Your task to perform on an android device: snooze an email in the gmail app Image 0: 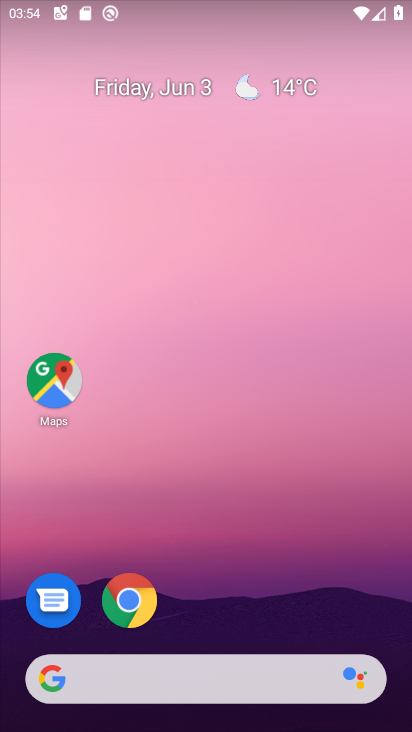
Step 0: drag from (223, 576) to (243, 154)
Your task to perform on an android device: snooze an email in the gmail app Image 1: 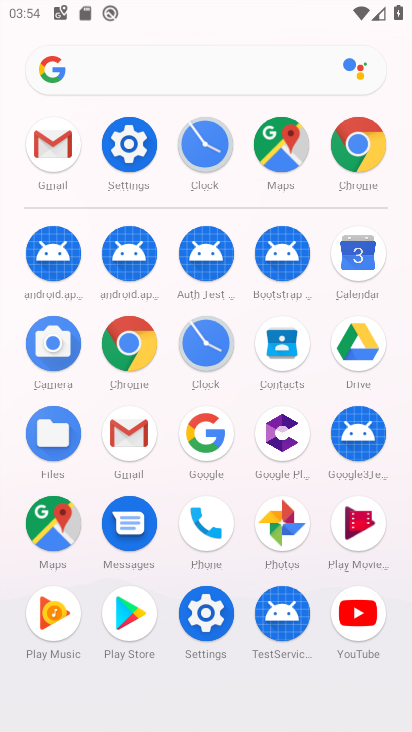
Step 1: click (66, 154)
Your task to perform on an android device: snooze an email in the gmail app Image 2: 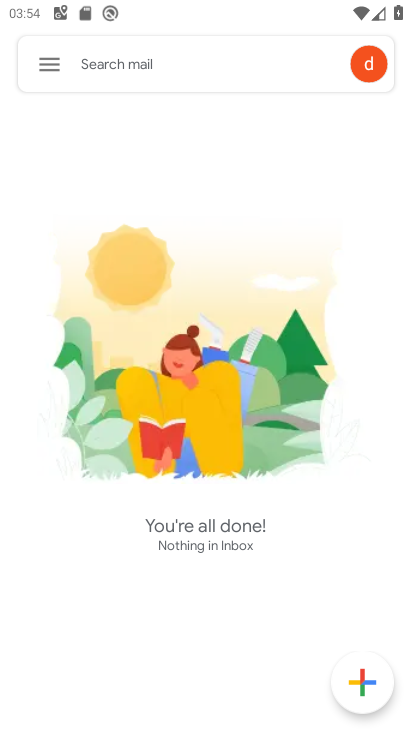
Step 2: click (46, 61)
Your task to perform on an android device: snooze an email in the gmail app Image 3: 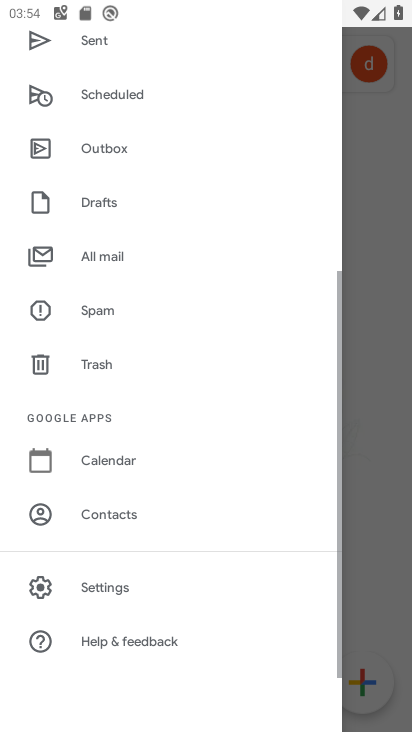
Step 3: drag from (128, 198) to (122, 517)
Your task to perform on an android device: snooze an email in the gmail app Image 4: 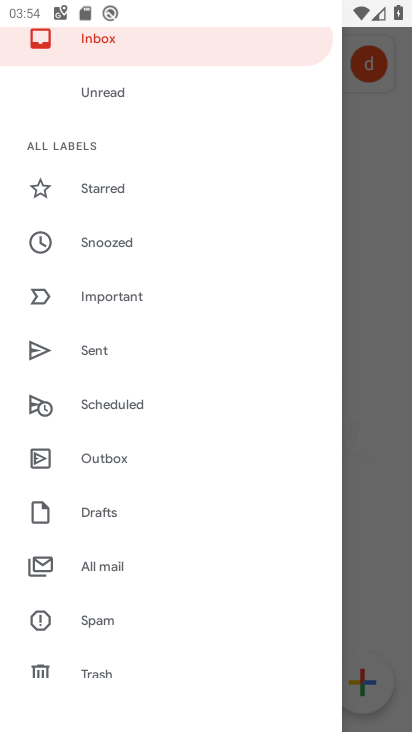
Step 4: drag from (183, 414) to (201, 132)
Your task to perform on an android device: snooze an email in the gmail app Image 5: 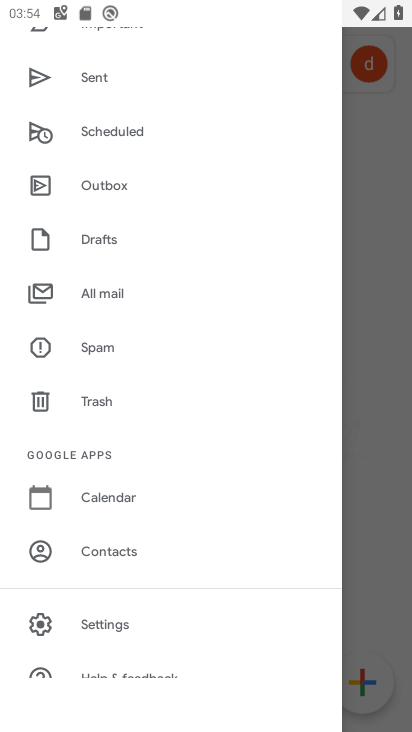
Step 5: drag from (109, 265) to (138, 483)
Your task to perform on an android device: snooze an email in the gmail app Image 6: 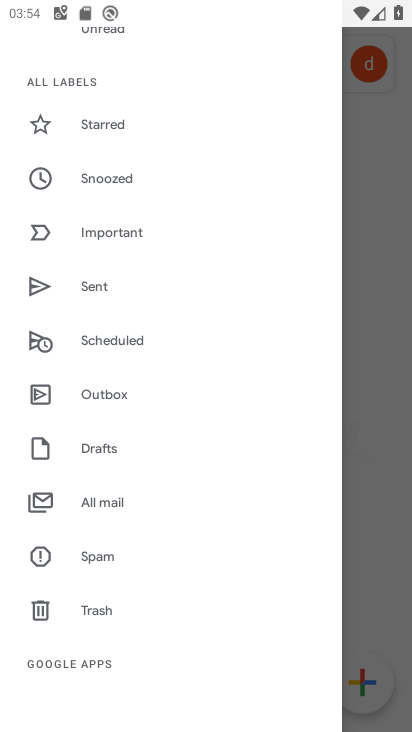
Step 6: click (127, 183)
Your task to perform on an android device: snooze an email in the gmail app Image 7: 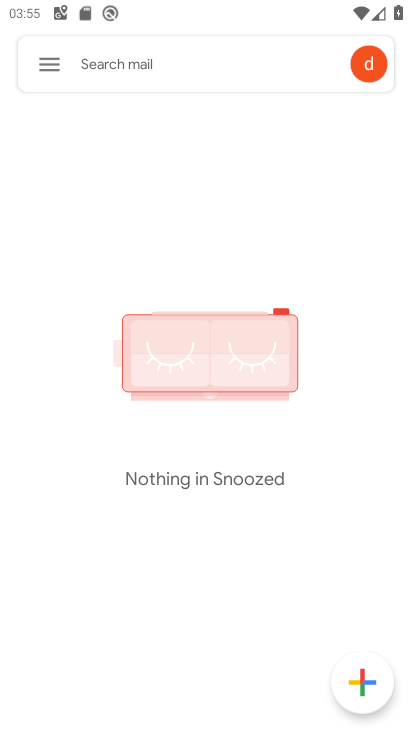
Step 7: task complete